Your task to perform on an android device: change the upload size in google photos Image 0: 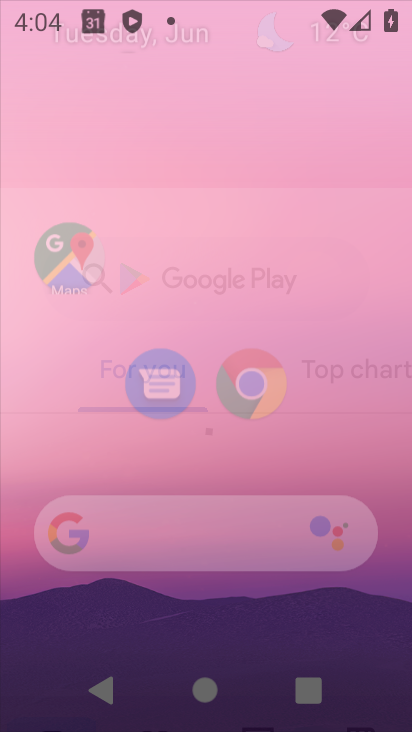
Step 0: drag from (353, 663) to (382, 96)
Your task to perform on an android device: change the upload size in google photos Image 1: 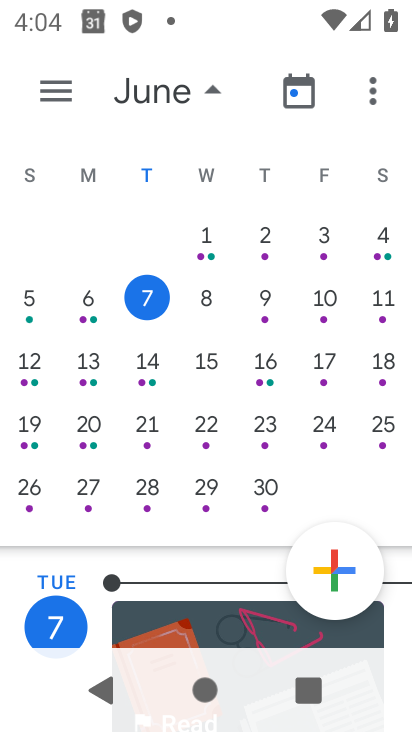
Step 1: press home button
Your task to perform on an android device: change the upload size in google photos Image 2: 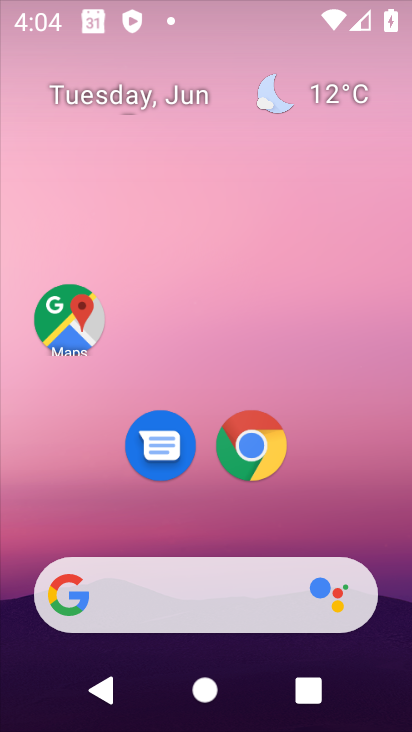
Step 2: drag from (410, 614) to (407, 108)
Your task to perform on an android device: change the upload size in google photos Image 3: 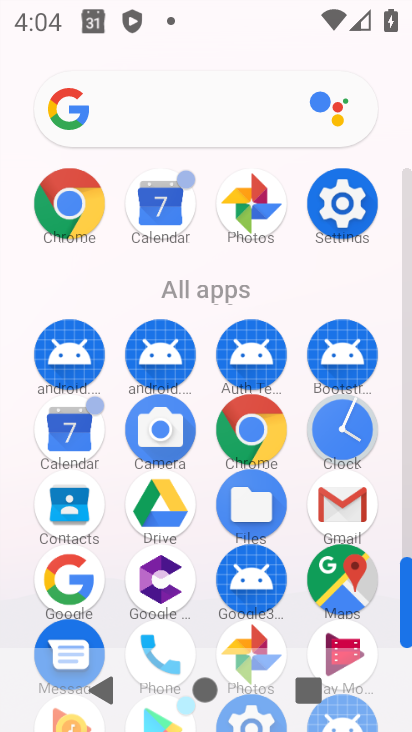
Step 3: click (256, 212)
Your task to perform on an android device: change the upload size in google photos Image 4: 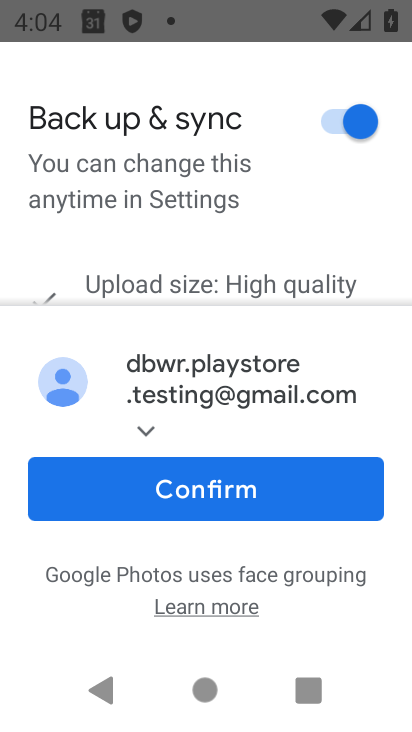
Step 4: click (211, 484)
Your task to perform on an android device: change the upload size in google photos Image 5: 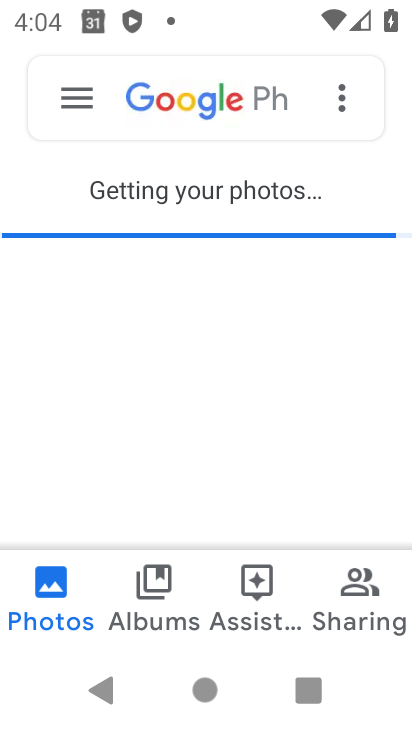
Step 5: click (72, 98)
Your task to perform on an android device: change the upload size in google photos Image 6: 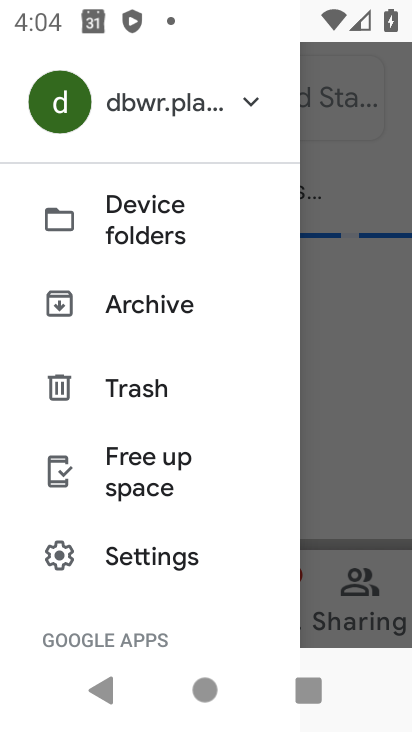
Step 6: drag from (164, 567) to (224, 20)
Your task to perform on an android device: change the upload size in google photos Image 7: 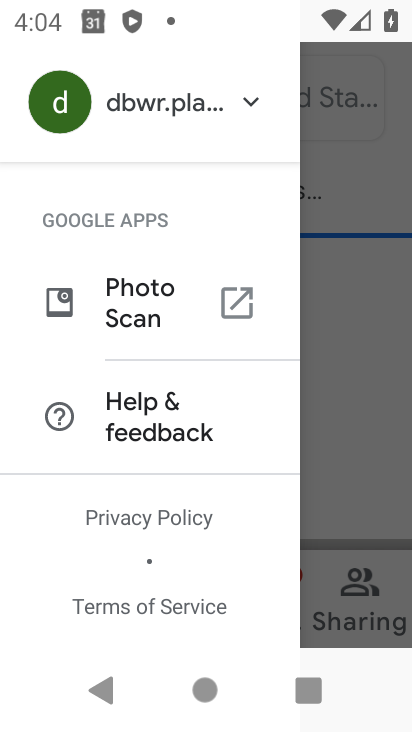
Step 7: drag from (142, 578) to (186, 101)
Your task to perform on an android device: change the upload size in google photos Image 8: 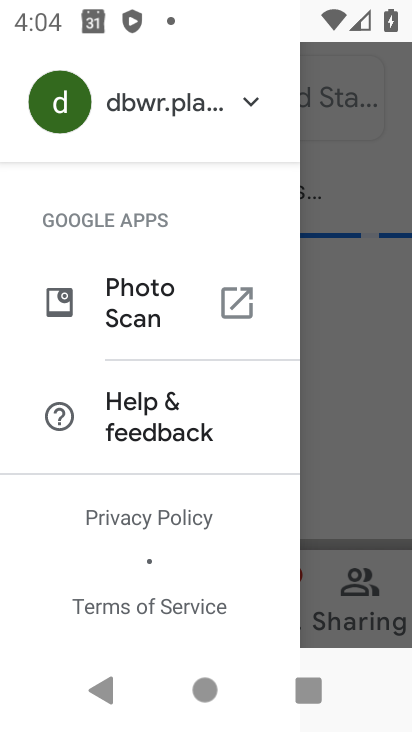
Step 8: drag from (149, 267) to (129, 673)
Your task to perform on an android device: change the upload size in google photos Image 9: 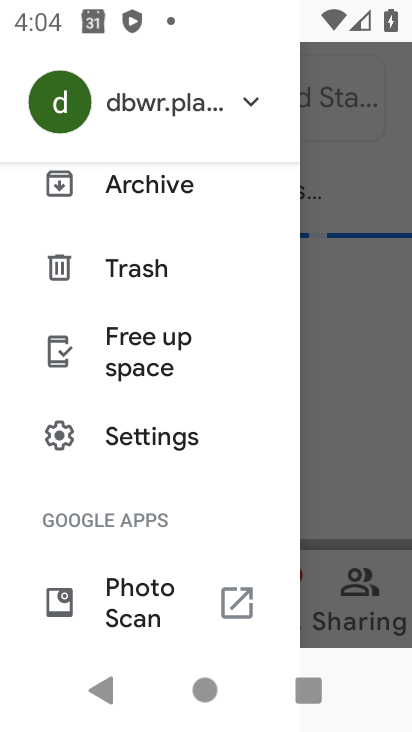
Step 9: click (112, 420)
Your task to perform on an android device: change the upload size in google photos Image 10: 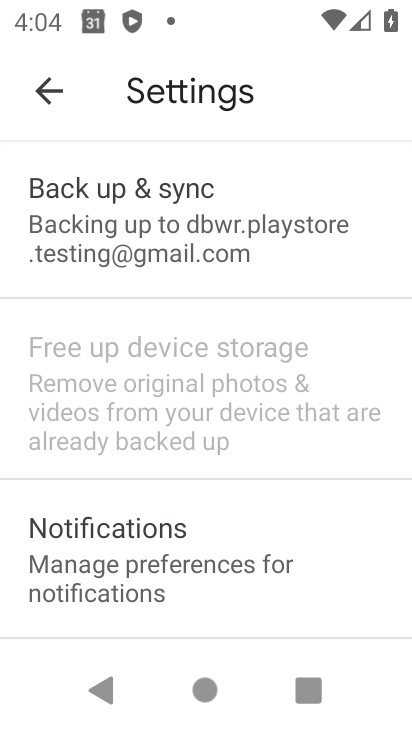
Step 10: click (124, 261)
Your task to perform on an android device: change the upload size in google photos Image 11: 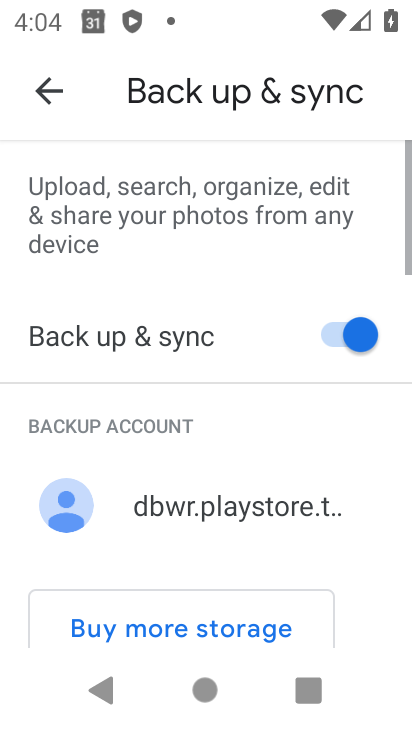
Step 11: drag from (195, 596) to (251, 158)
Your task to perform on an android device: change the upload size in google photos Image 12: 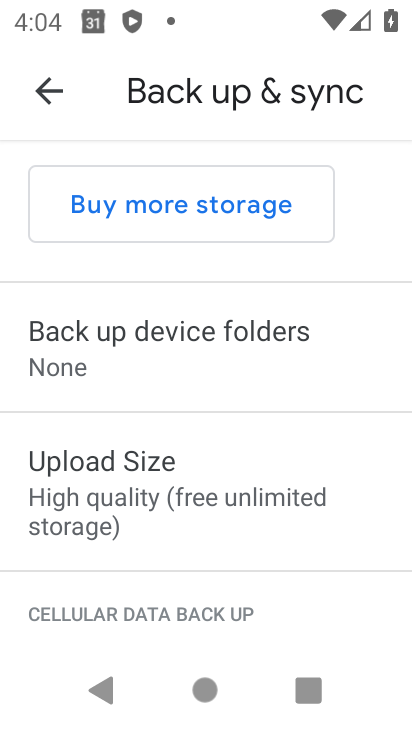
Step 12: click (190, 502)
Your task to perform on an android device: change the upload size in google photos Image 13: 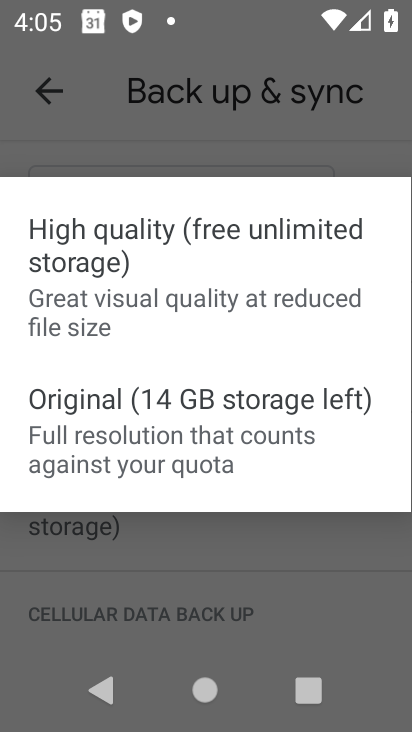
Step 13: click (180, 429)
Your task to perform on an android device: change the upload size in google photos Image 14: 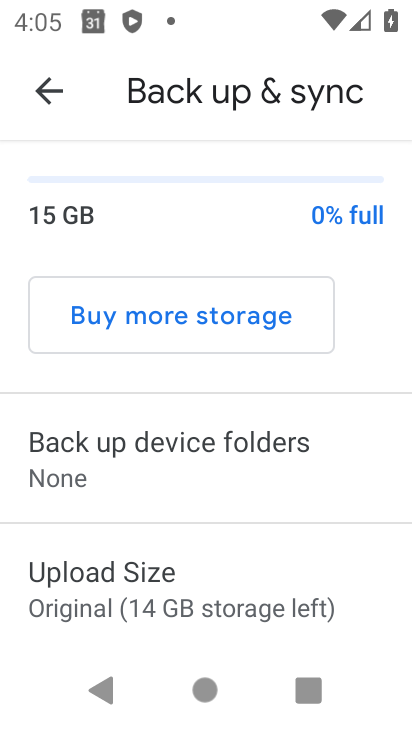
Step 14: task complete